Your task to perform on an android device: find snoozed emails in the gmail app Image 0: 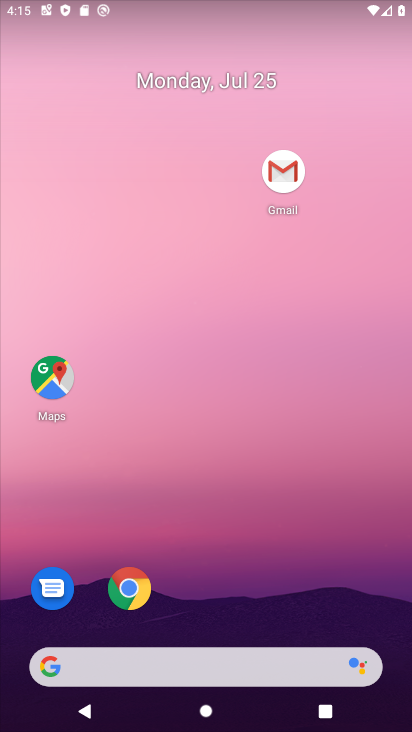
Step 0: drag from (300, 597) to (357, 3)
Your task to perform on an android device: find snoozed emails in the gmail app Image 1: 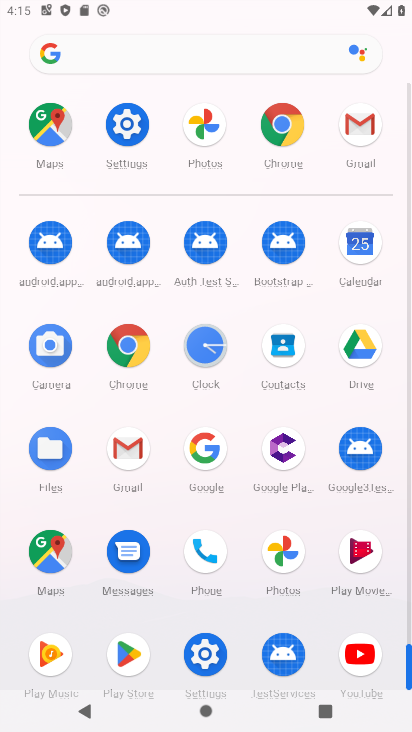
Step 1: click (365, 119)
Your task to perform on an android device: find snoozed emails in the gmail app Image 2: 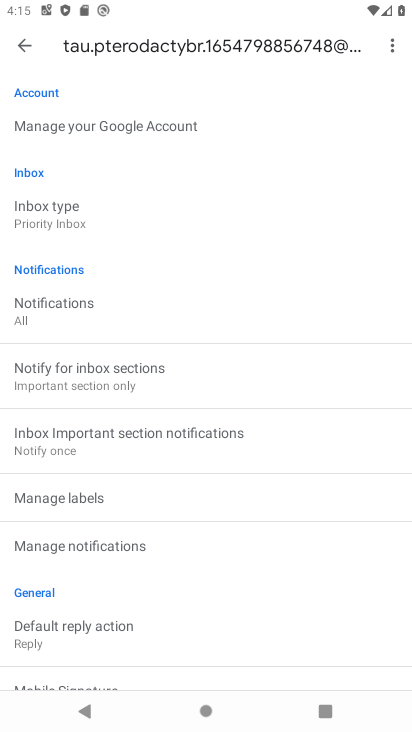
Step 2: click (32, 44)
Your task to perform on an android device: find snoozed emails in the gmail app Image 3: 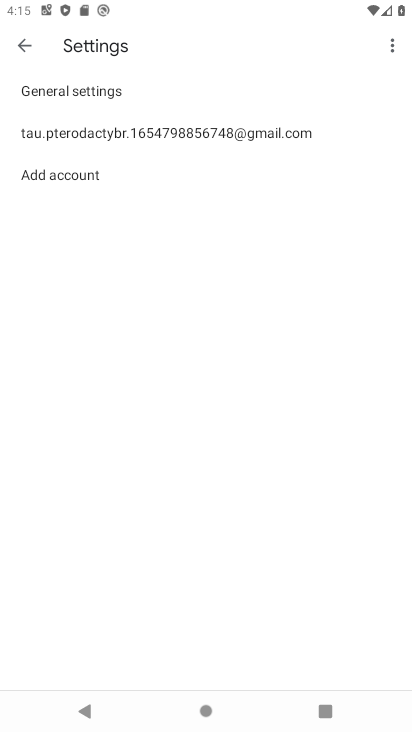
Step 3: click (32, 44)
Your task to perform on an android device: find snoozed emails in the gmail app Image 4: 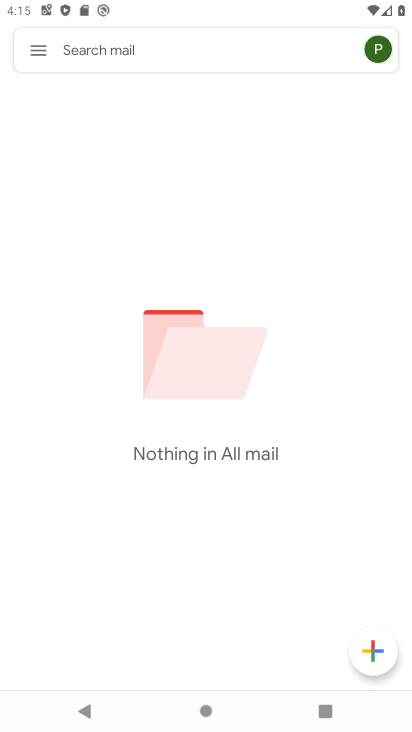
Step 4: click (50, 48)
Your task to perform on an android device: find snoozed emails in the gmail app Image 5: 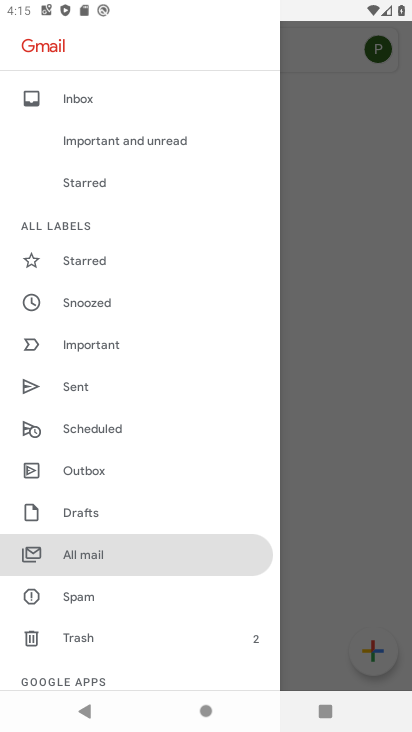
Step 5: click (93, 304)
Your task to perform on an android device: find snoozed emails in the gmail app Image 6: 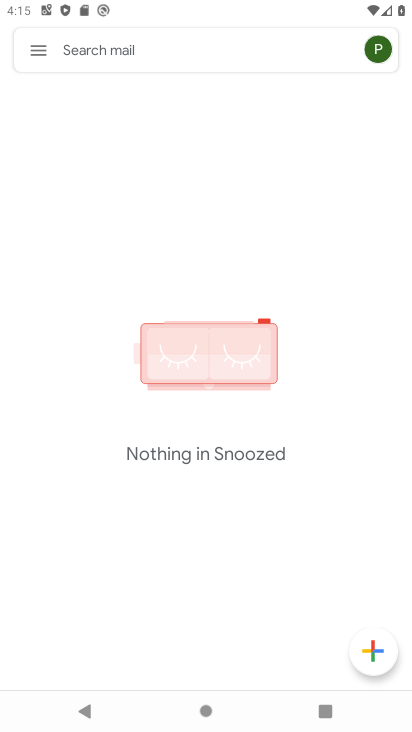
Step 6: task complete